Your task to perform on an android device: What's the weather going to be tomorrow? Image 0: 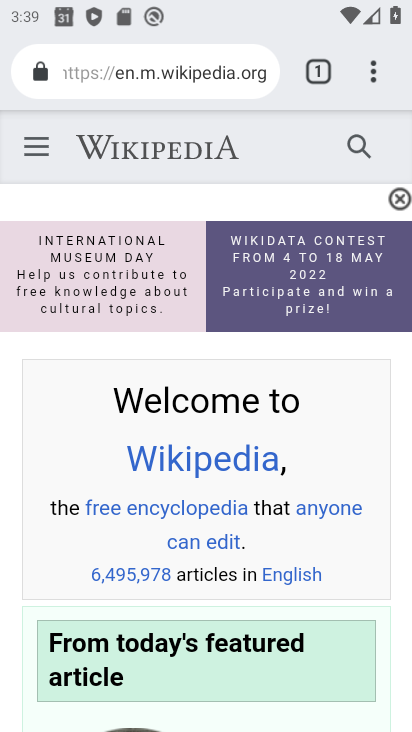
Step 0: press home button
Your task to perform on an android device: What's the weather going to be tomorrow? Image 1: 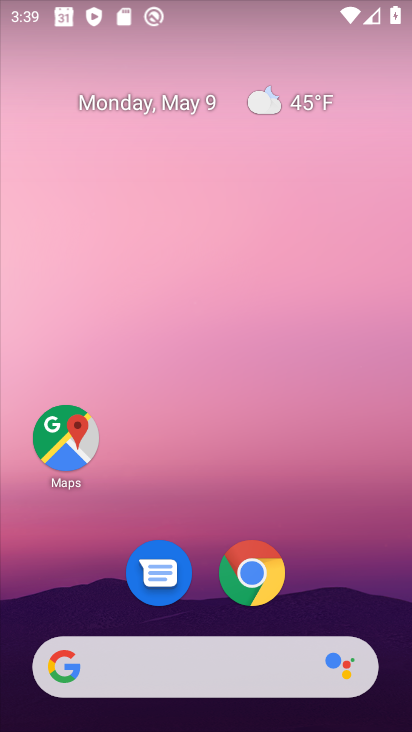
Step 1: click (311, 102)
Your task to perform on an android device: What's the weather going to be tomorrow? Image 2: 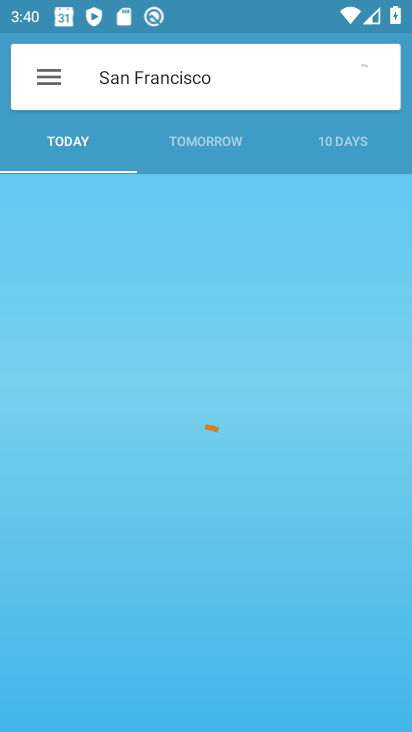
Step 2: click (216, 141)
Your task to perform on an android device: What's the weather going to be tomorrow? Image 3: 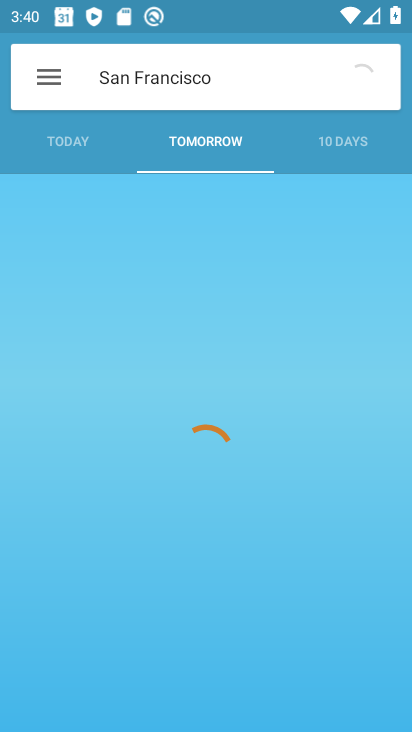
Step 3: task complete